Your task to perform on an android device: Go to location settings Image 0: 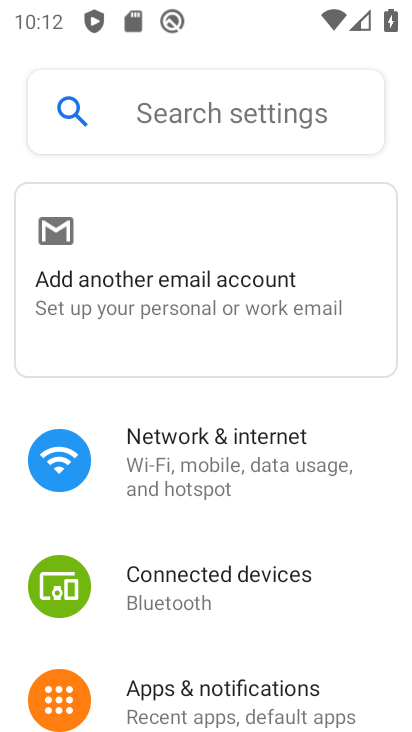
Step 0: drag from (173, 600) to (278, 73)
Your task to perform on an android device: Go to location settings Image 1: 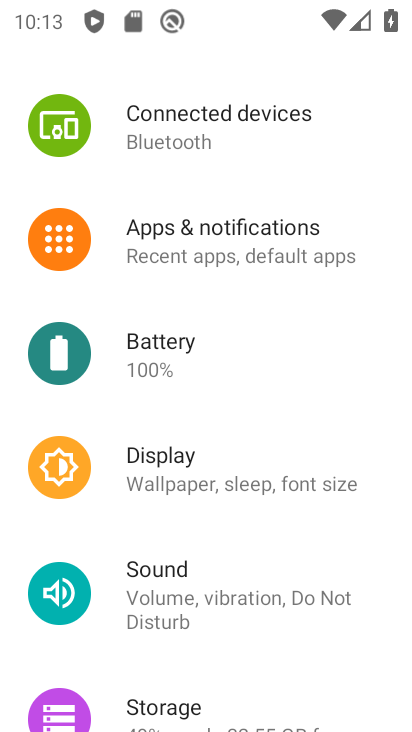
Step 1: drag from (121, 647) to (196, 84)
Your task to perform on an android device: Go to location settings Image 2: 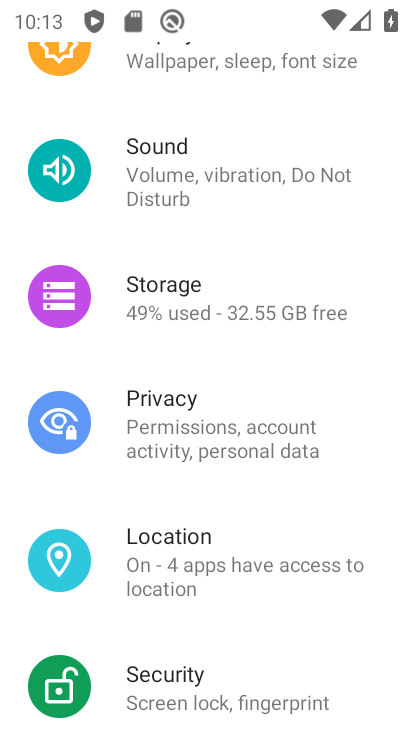
Step 2: click (171, 513)
Your task to perform on an android device: Go to location settings Image 3: 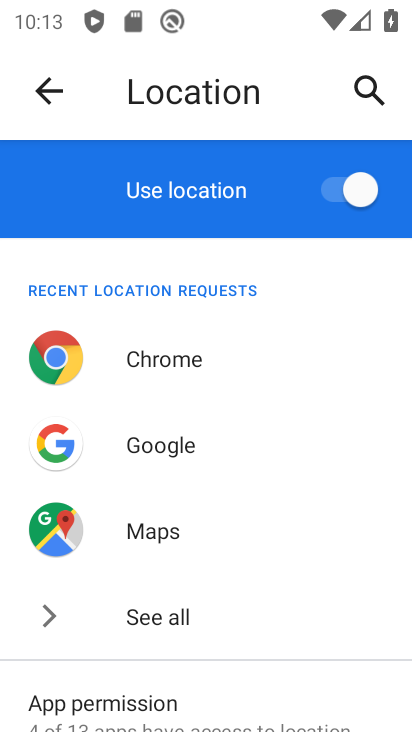
Step 3: task complete